Your task to perform on an android device: turn off smart reply in the gmail app Image 0: 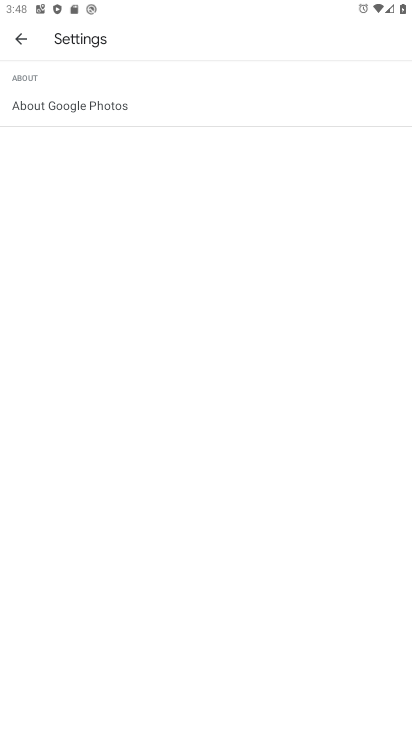
Step 0: press home button
Your task to perform on an android device: turn off smart reply in the gmail app Image 1: 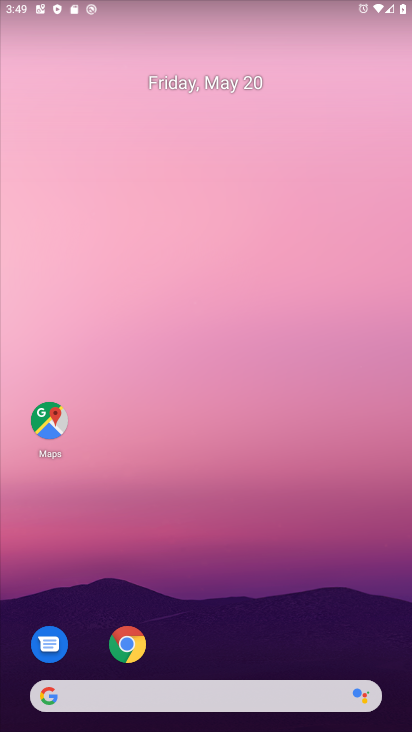
Step 1: drag from (315, 601) to (137, 7)
Your task to perform on an android device: turn off smart reply in the gmail app Image 2: 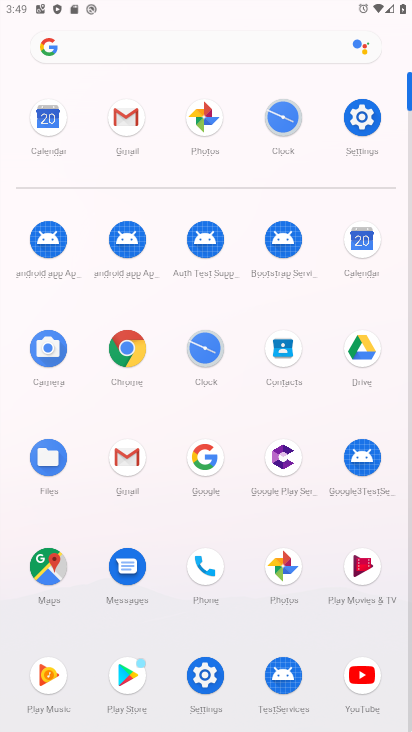
Step 2: click (142, 215)
Your task to perform on an android device: turn off smart reply in the gmail app Image 3: 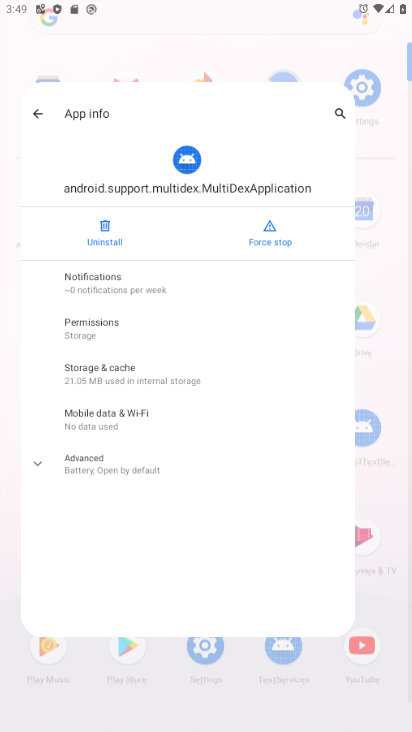
Step 3: click (124, 152)
Your task to perform on an android device: turn off smart reply in the gmail app Image 4: 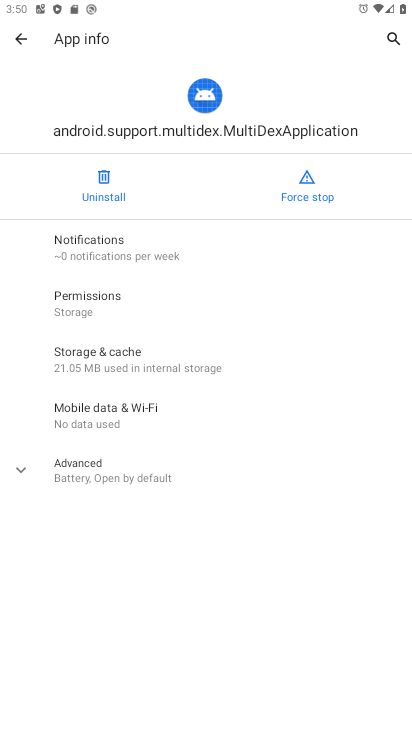
Step 4: task complete